Your task to perform on an android device: turn on sleep mode Image 0: 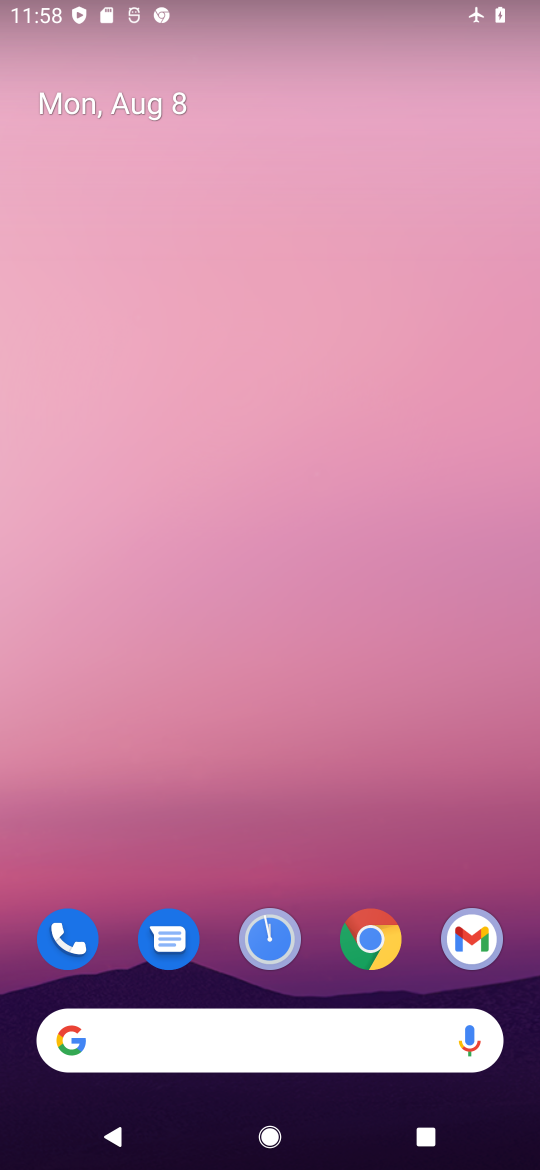
Step 0: drag from (190, 1031) to (406, 292)
Your task to perform on an android device: turn on sleep mode Image 1: 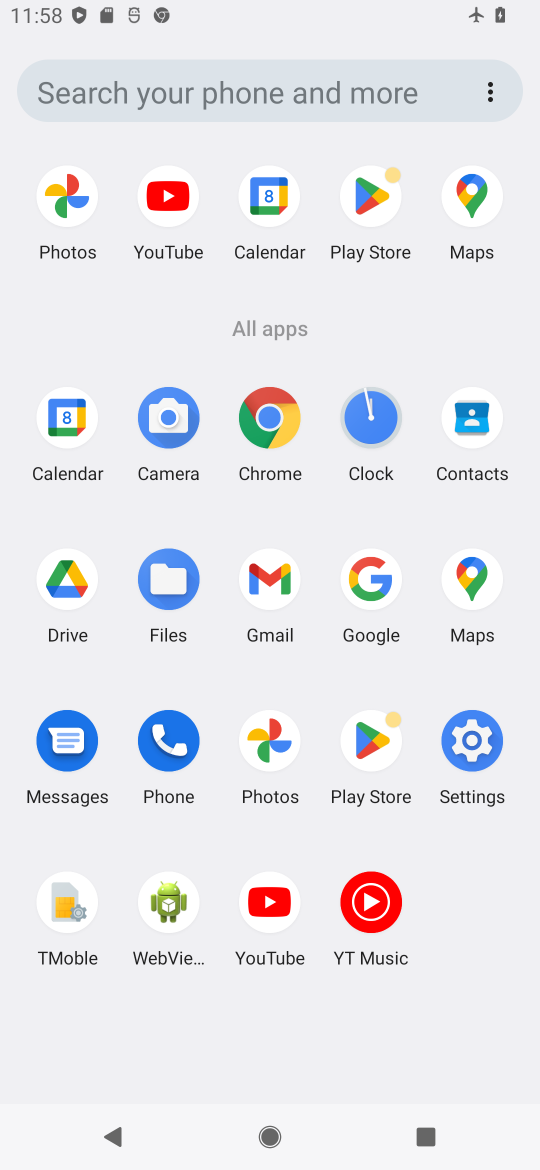
Step 1: click (470, 743)
Your task to perform on an android device: turn on sleep mode Image 2: 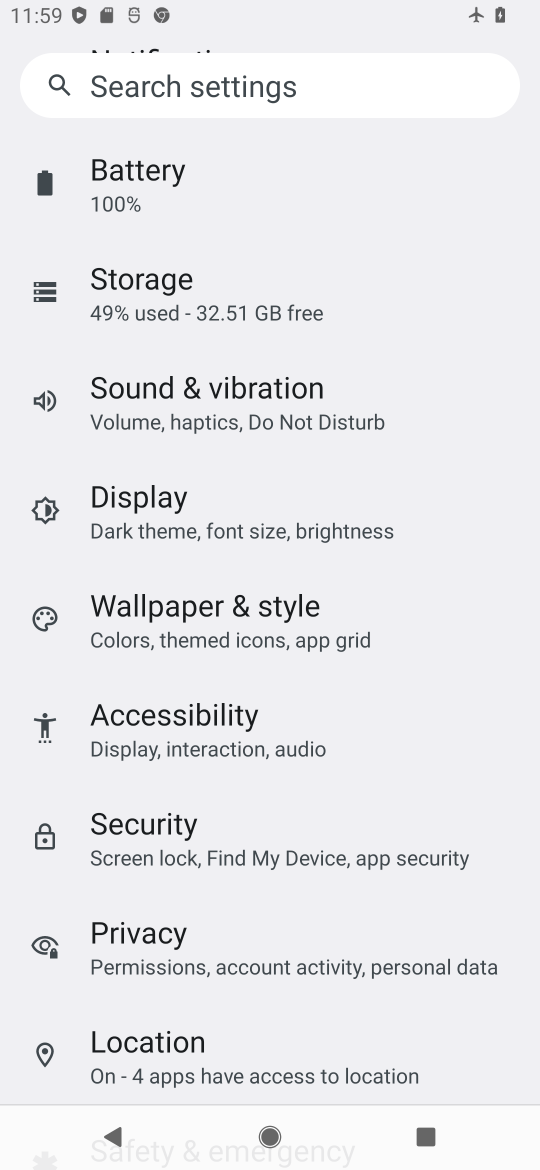
Step 2: drag from (293, 325) to (345, 500)
Your task to perform on an android device: turn on sleep mode Image 3: 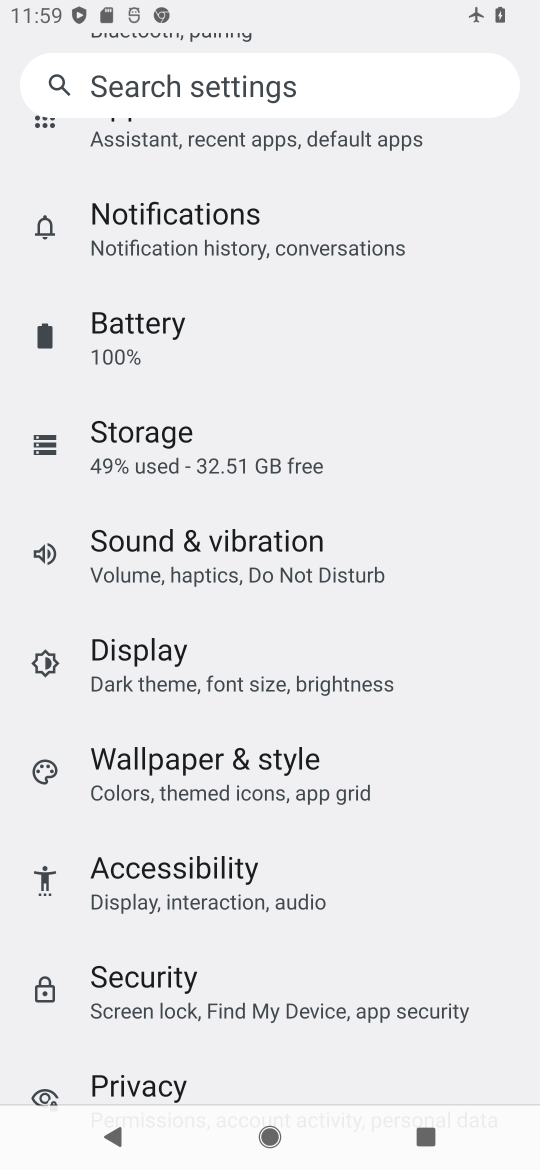
Step 3: drag from (302, 193) to (322, 410)
Your task to perform on an android device: turn on sleep mode Image 4: 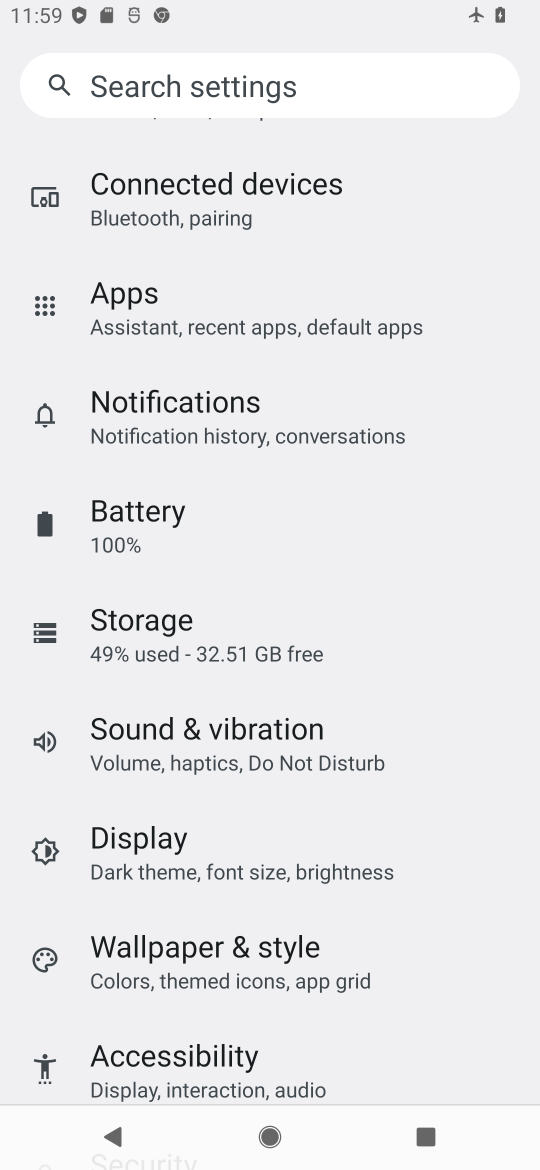
Step 4: drag from (271, 793) to (354, 623)
Your task to perform on an android device: turn on sleep mode Image 5: 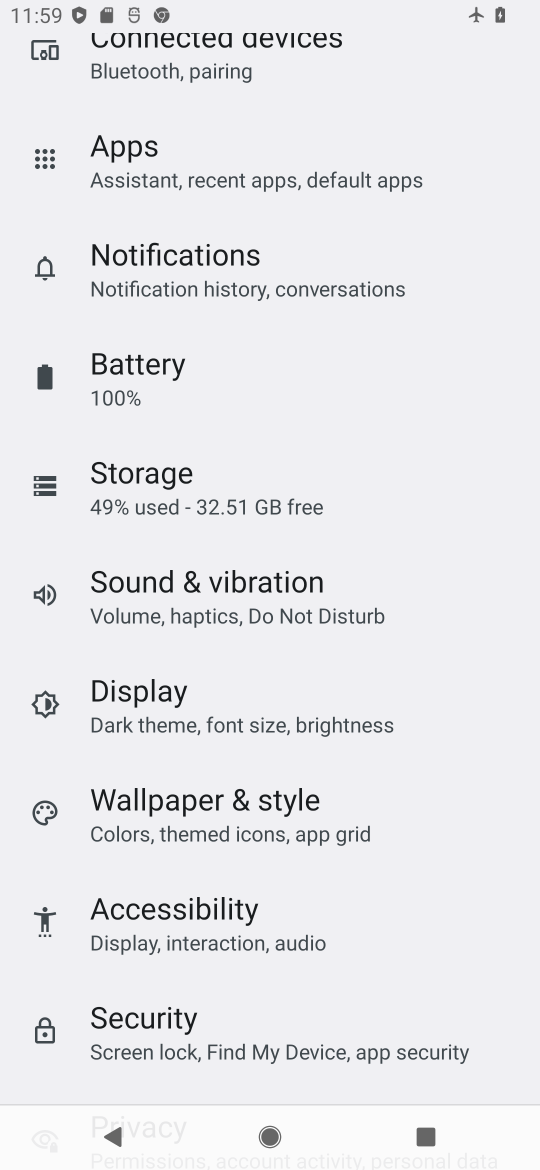
Step 5: drag from (230, 836) to (299, 690)
Your task to perform on an android device: turn on sleep mode Image 6: 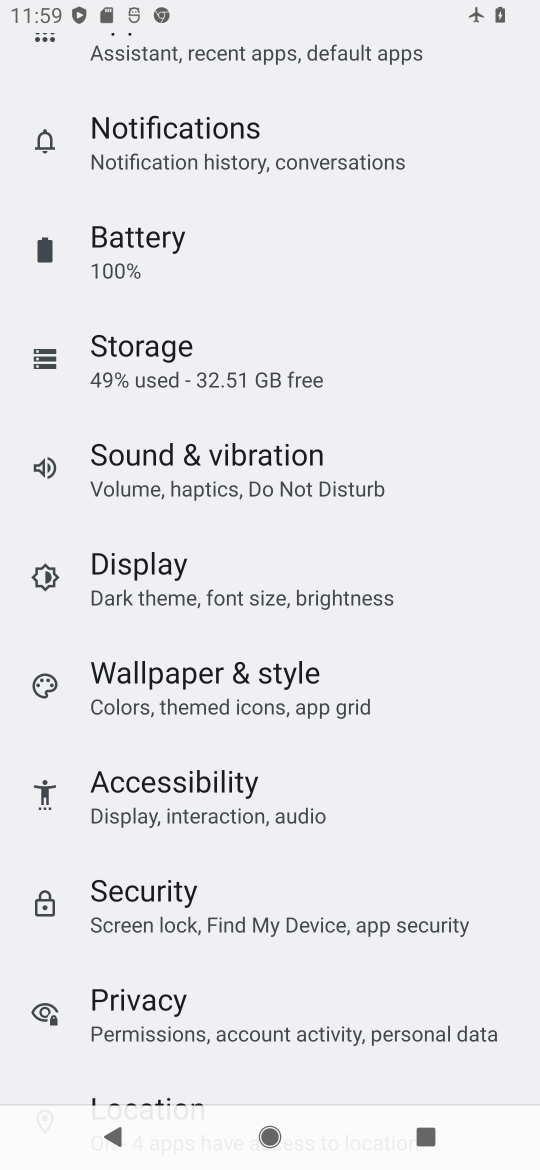
Step 6: drag from (268, 316) to (287, 951)
Your task to perform on an android device: turn on sleep mode Image 7: 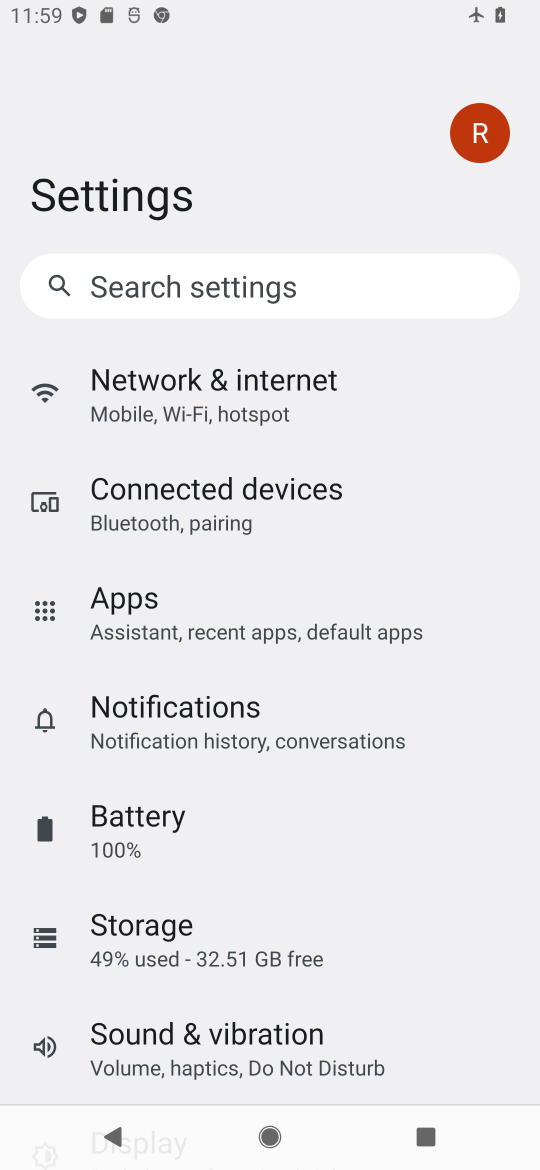
Step 7: drag from (241, 686) to (316, 547)
Your task to perform on an android device: turn on sleep mode Image 8: 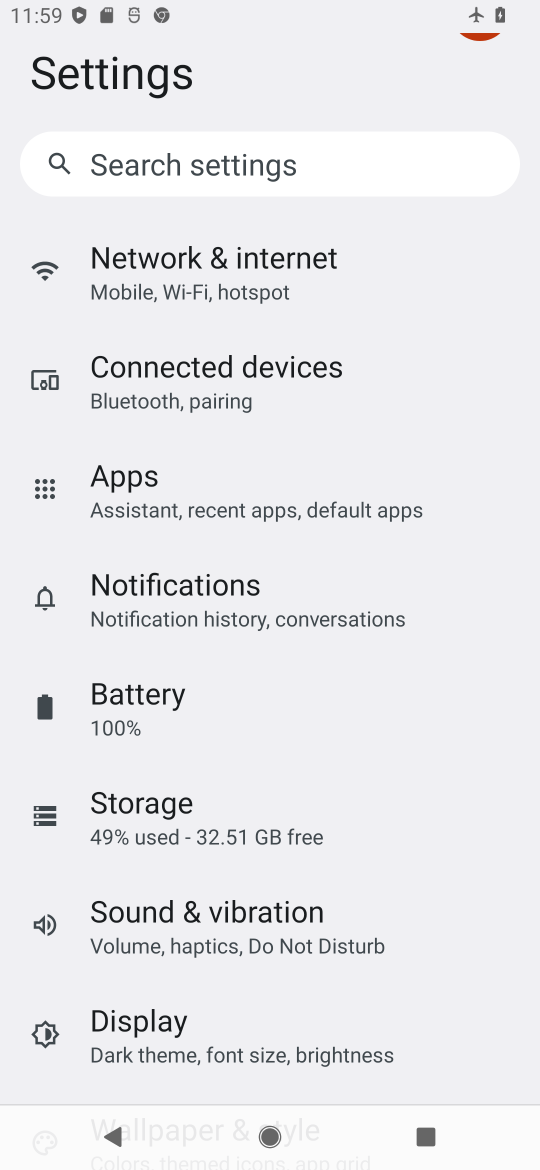
Step 8: drag from (269, 785) to (386, 626)
Your task to perform on an android device: turn on sleep mode Image 9: 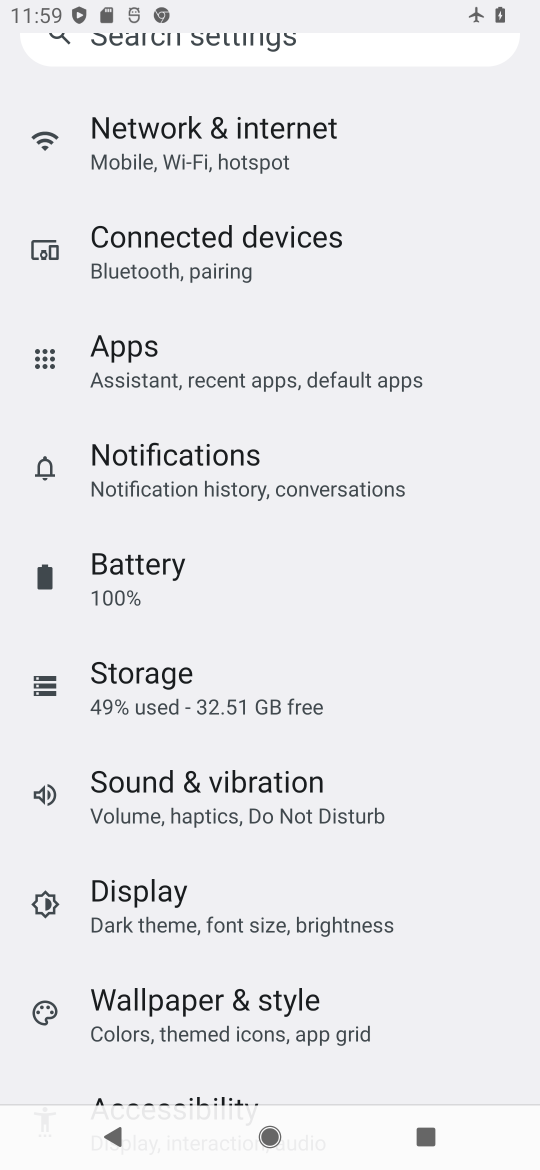
Step 9: click (305, 909)
Your task to perform on an android device: turn on sleep mode Image 10: 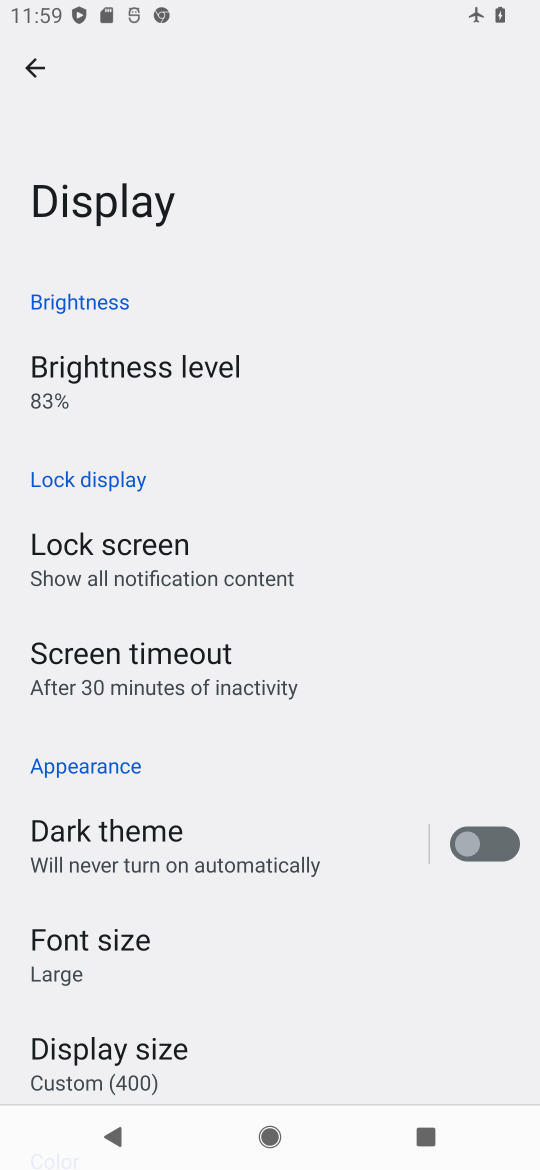
Step 10: click (224, 589)
Your task to perform on an android device: turn on sleep mode Image 11: 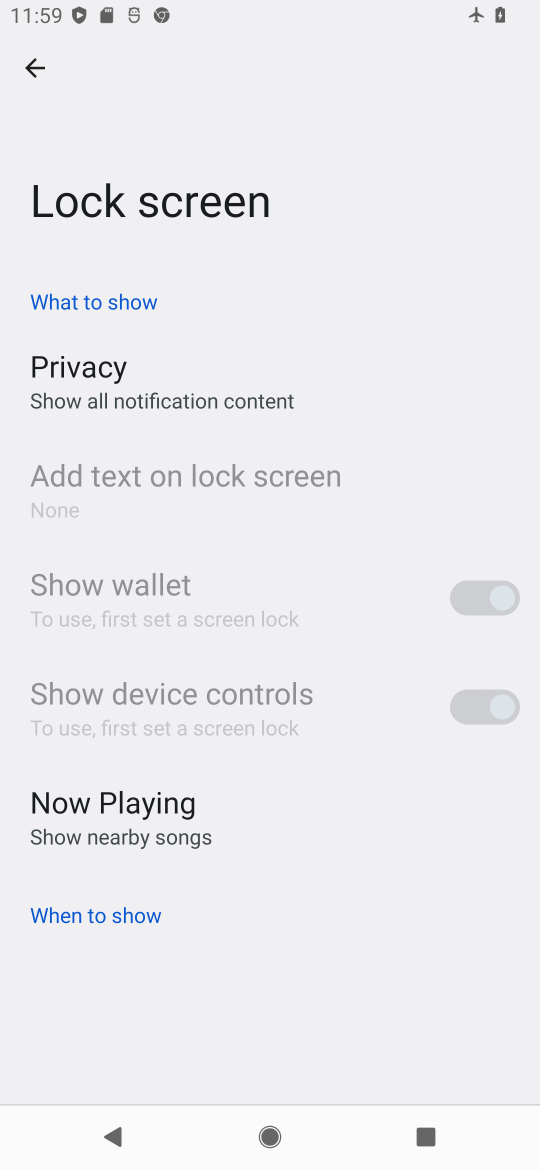
Step 11: click (116, 916)
Your task to perform on an android device: turn on sleep mode Image 12: 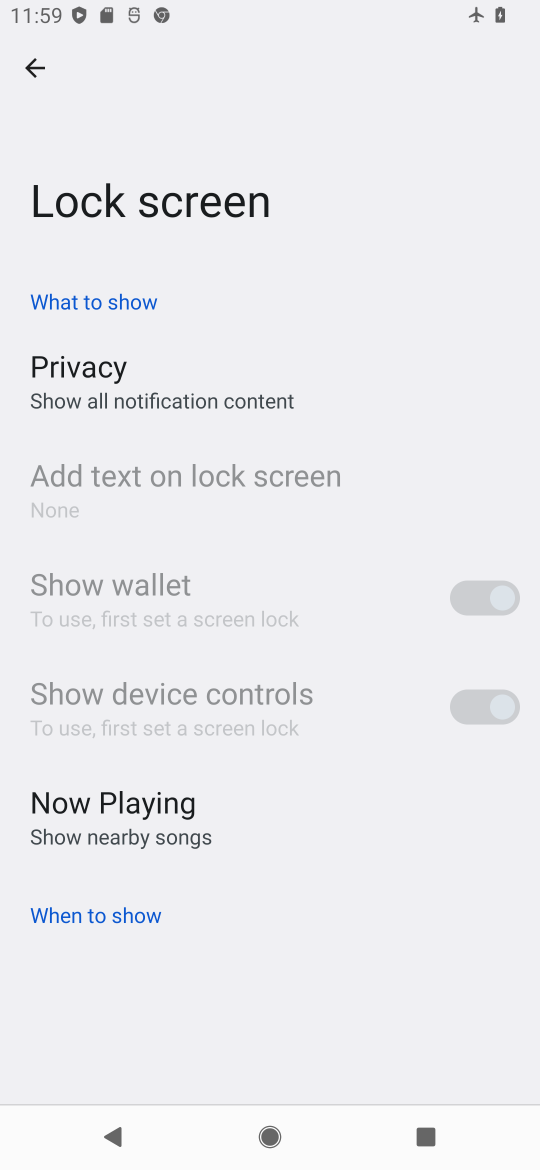
Step 12: click (133, 410)
Your task to perform on an android device: turn on sleep mode Image 13: 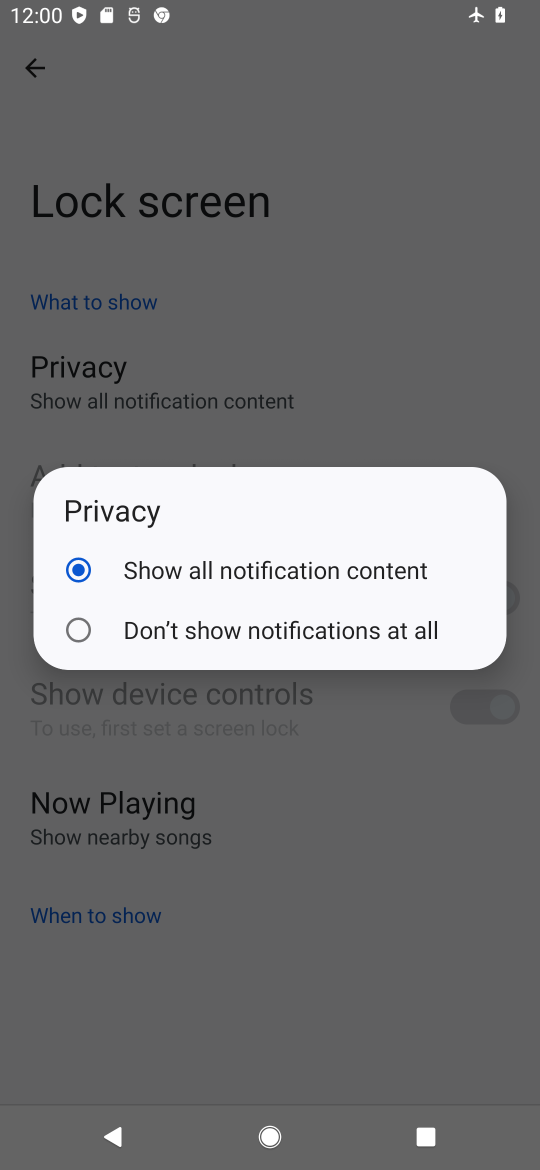
Step 13: press back button
Your task to perform on an android device: turn on sleep mode Image 14: 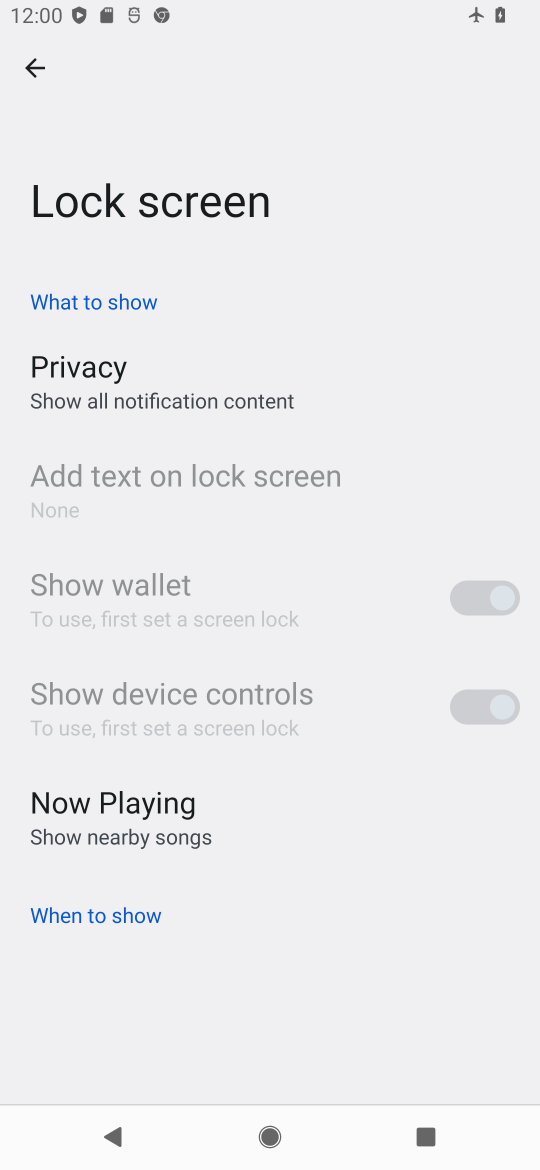
Step 14: press back button
Your task to perform on an android device: turn on sleep mode Image 15: 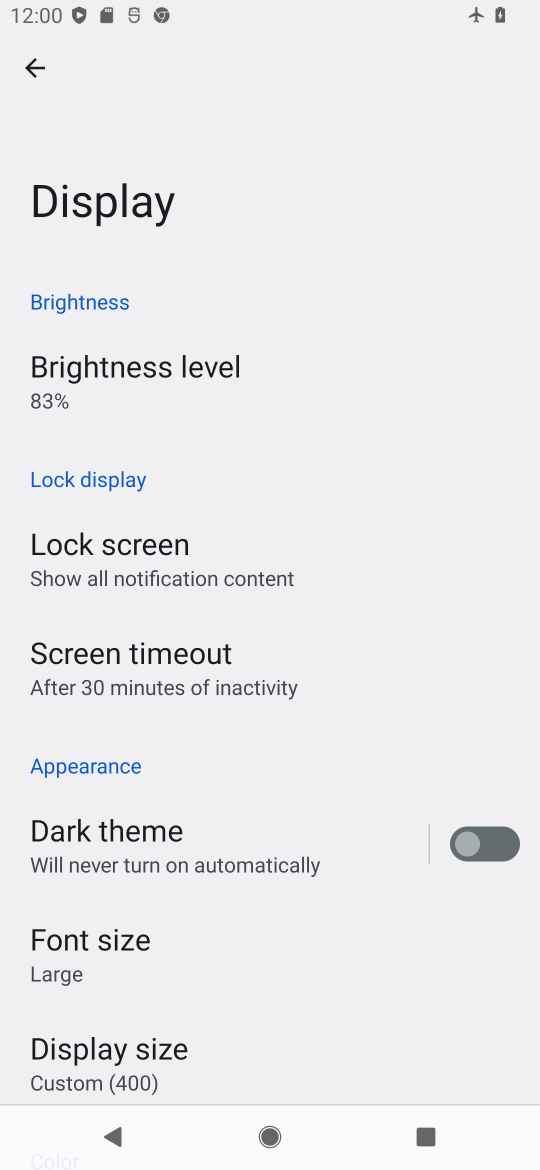
Step 15: click (104, 699)
Your task to perform on an android device: turn on sleep mode Image 16: 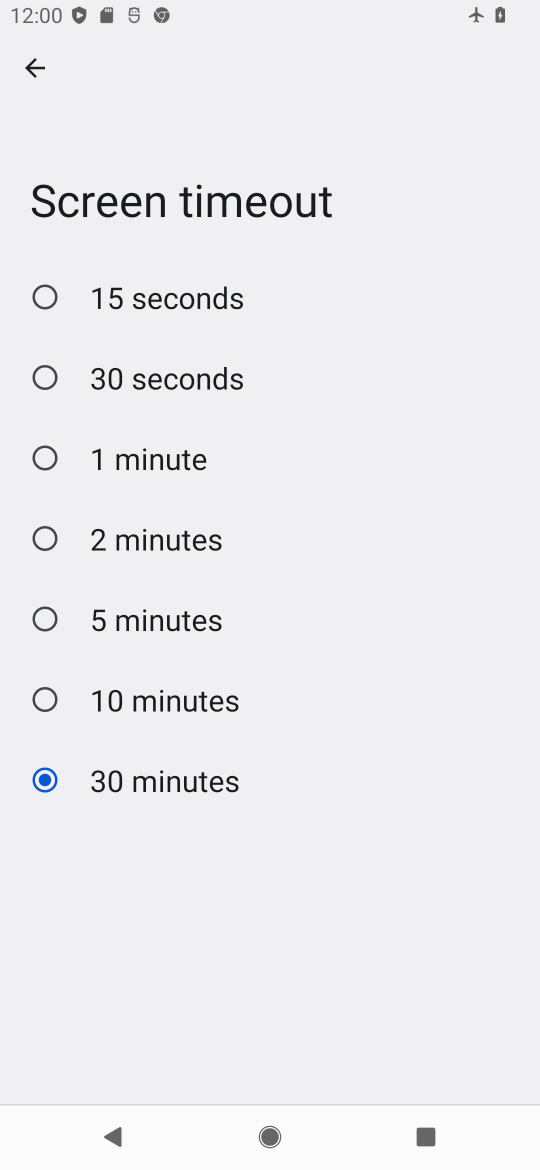
Step 16: press back button
Your task to perform on an android device: turn on sleep mode Image 17: 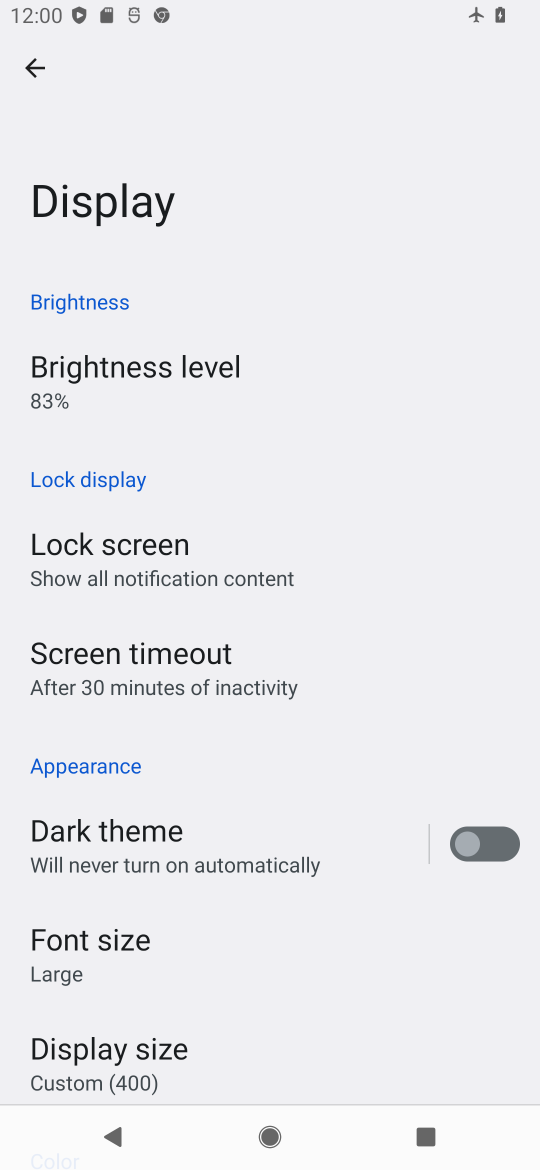
Step 17: drag from (166, 1002) to (267, 801)
Your task to perform on an android device: turn on sleep mode Image 18: 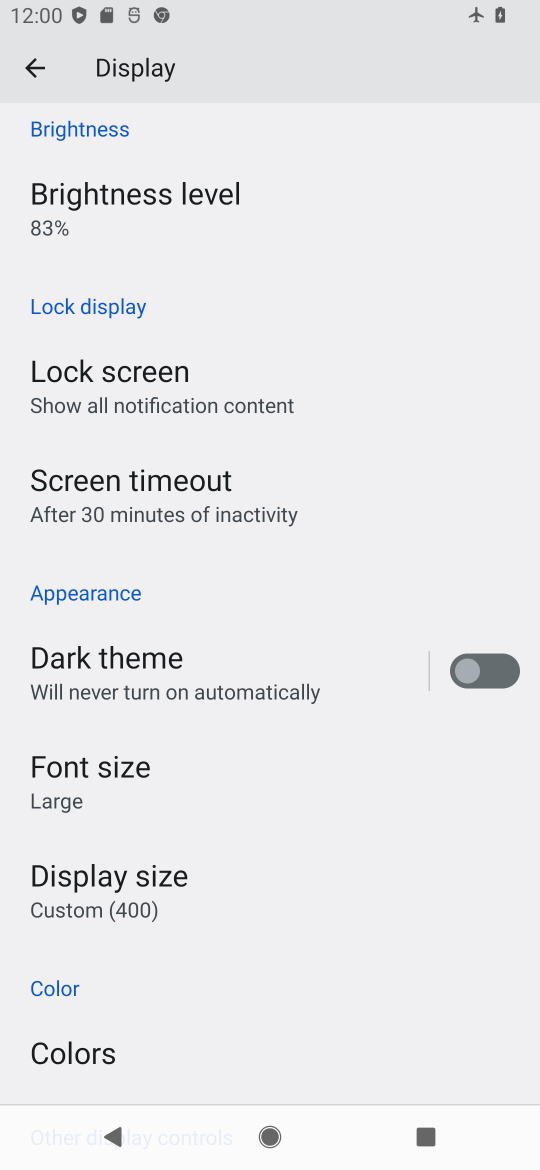
Step 18: drag from (102, 929) to (238, 721)
Your task to perform on an android device: turn on sleep mode Image 19: 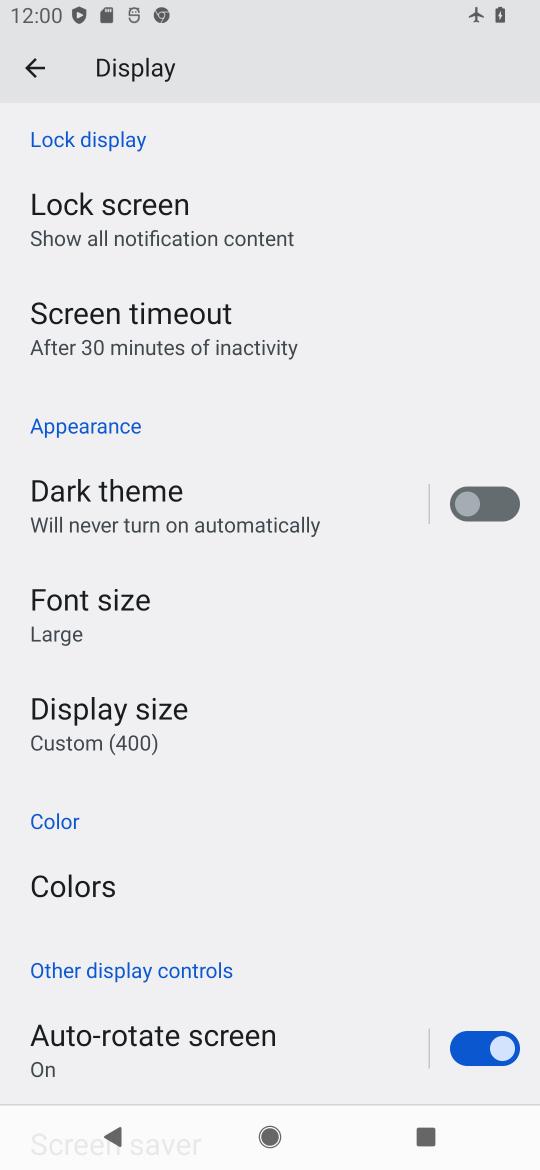
Step 19: drag from (117, 990) to (231, 820)
Your task to perform on an android device: turn on sleep mode Image 20: 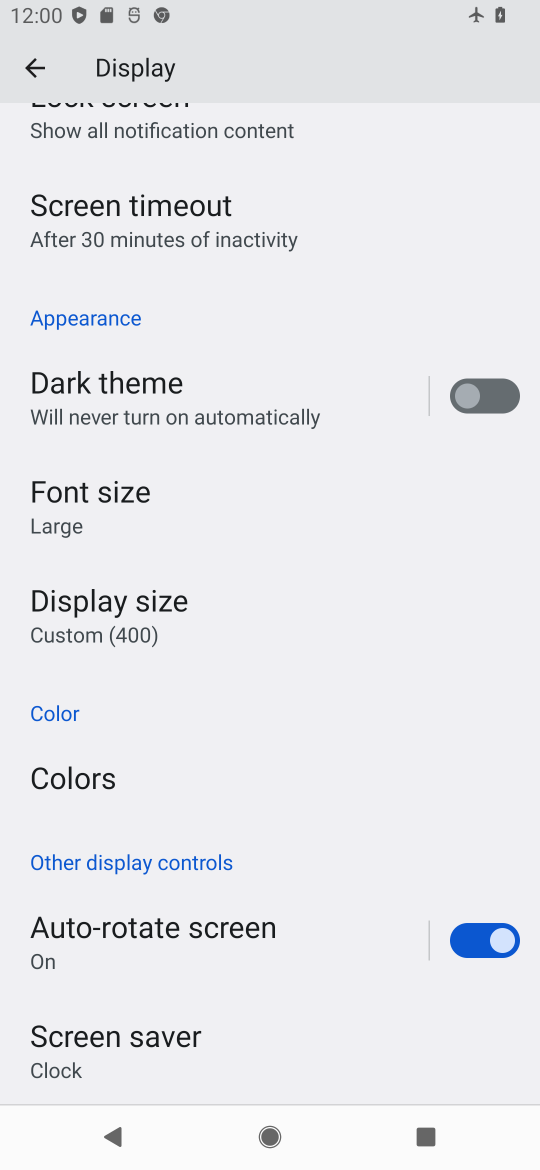
Step 20: drag from (122, 1005) to (233, 864)
Your task to perform on an android device: turn on sleep mode Image 21: 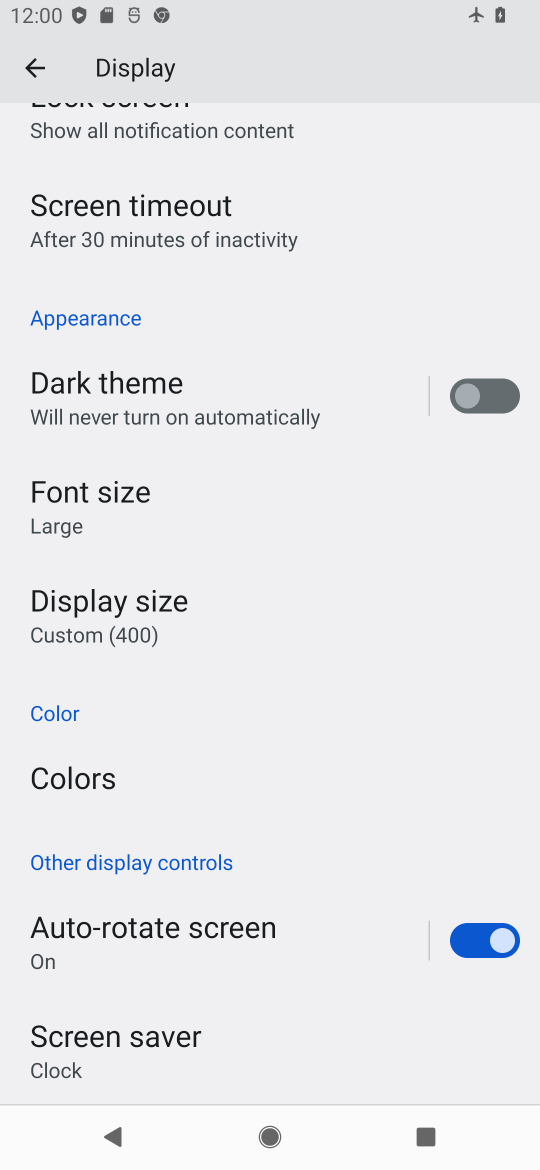
Step 21: click (129, 1032)
Your task to perform on an android device: turn on sleep mode Image 22: 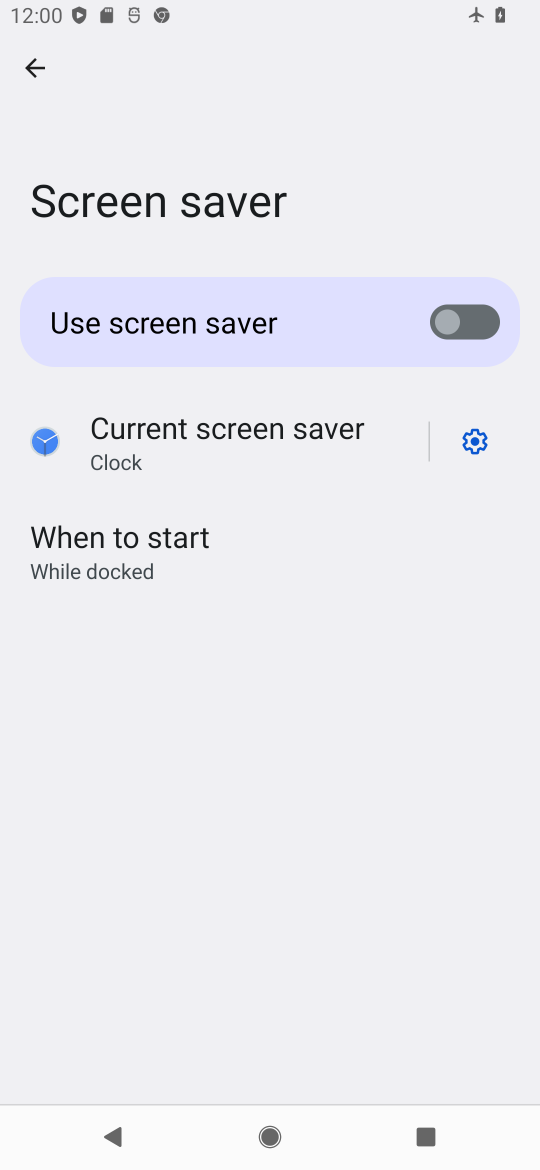
Step 22: click (212, 553)
Your task to perform on an android device: turn on sleep mode Image 23: 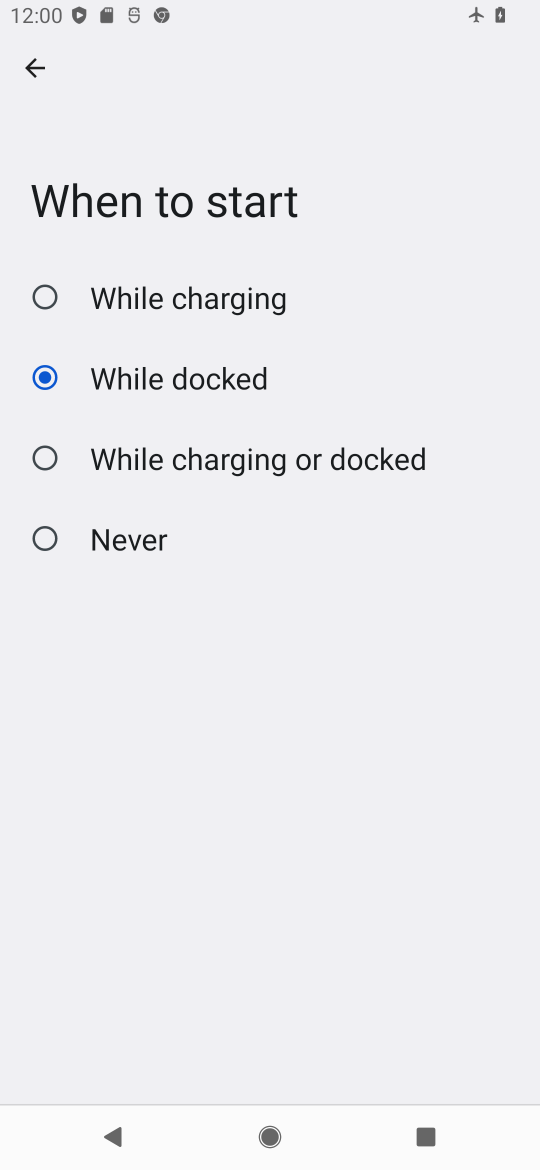
Step 23: task complete